Your task to perform on an android device: Show me the alarms in the clock app Image 0: 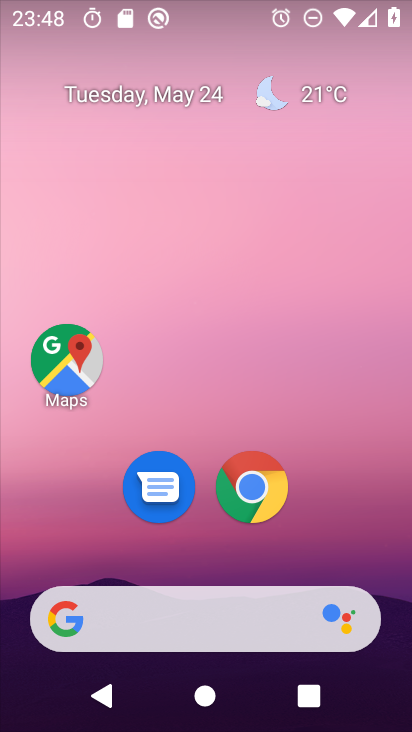
Step 0: drag from (348, 536) to (326, 19)
Your task to perform on an android device: Show me the alarms in the clock app Image 1: 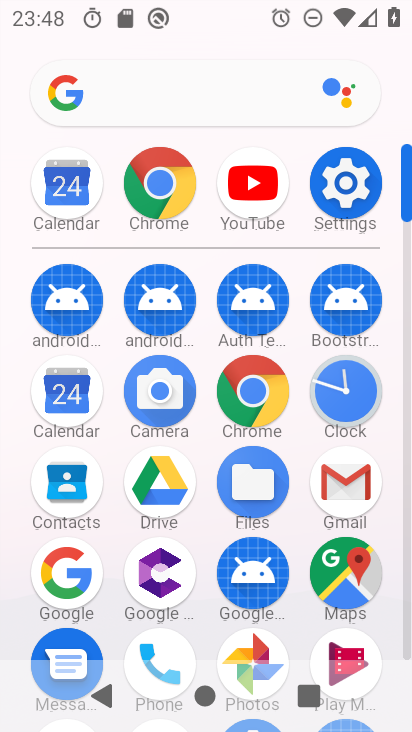
Step 1: click (347, 395)
Your task to perform on an android device: Show me the alarms in the clock app Image 2: 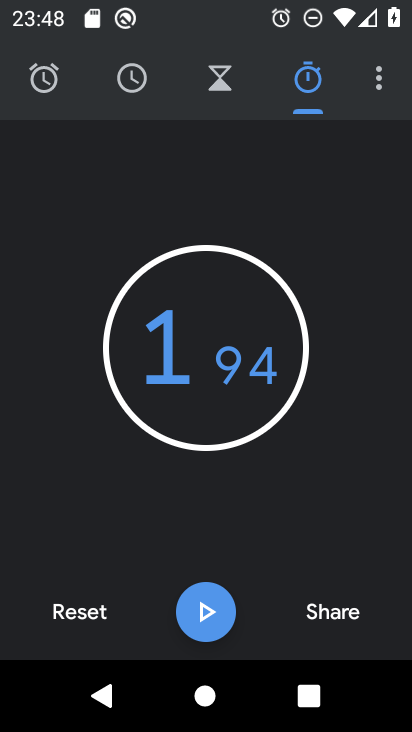
Step 2: click (46, 92)
Your task to perform on an android device: Show me the alarms in the clock app Image 3: 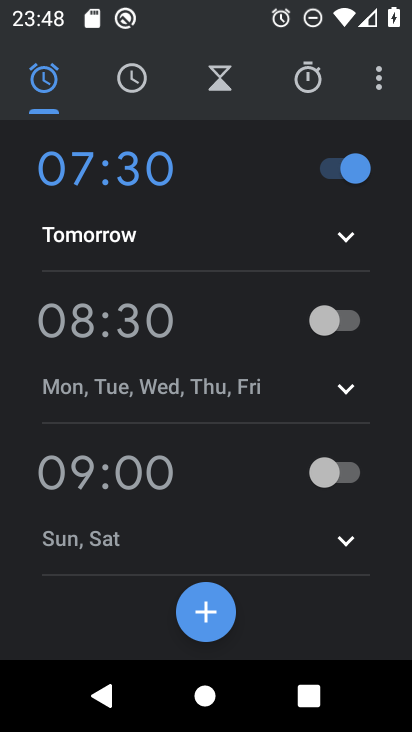
Step 3: task complete